Your task to perform on an android device: What's the weather going to be tomorrow? Image 0: 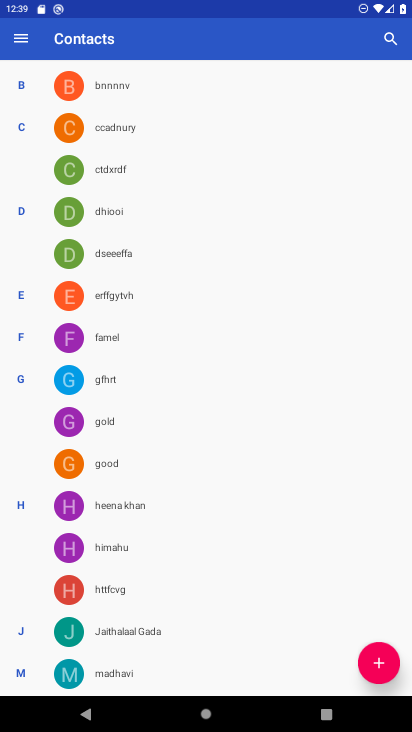
Step 0: press home button
Your task to perform on an android device: What's the weather going to be tomorrow? Image 1: 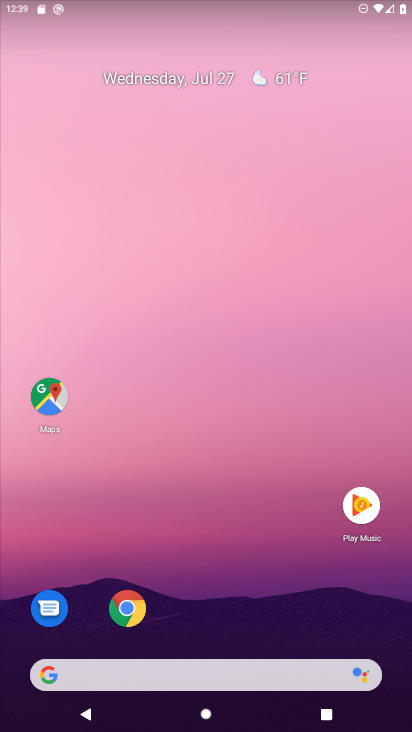
Step 1: click (250, 665)
Your task to perform on an android device: What's the weather going to be tomorrow? Image 2: 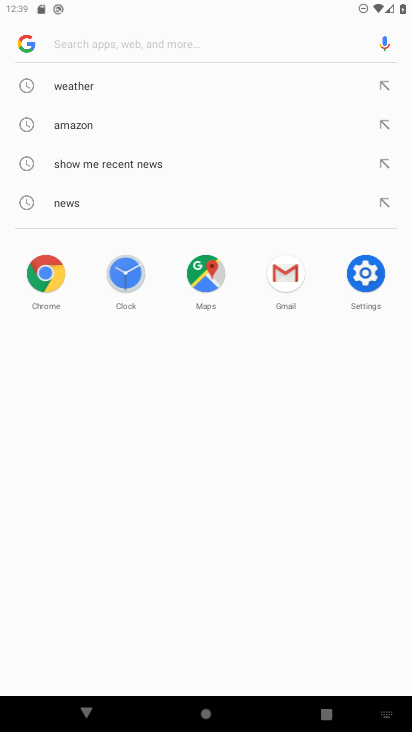
Step 2: click (89, 89)
Your task to perform on an android device: What's the weather going to be tomorrow? Image 3: 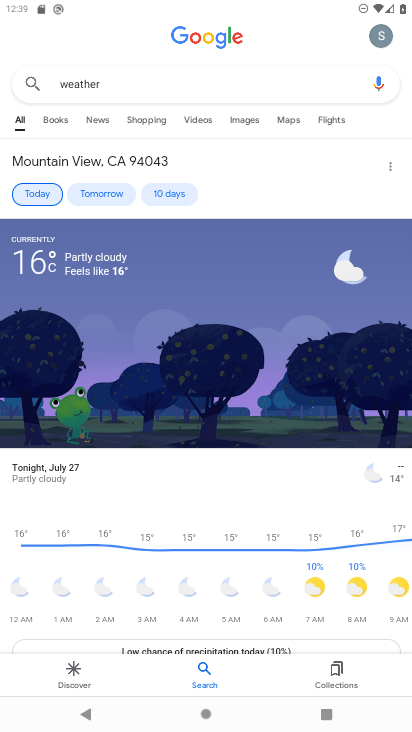
Step 3: click (104, 196)
Your task to perform on an android device: What's the weather going to be tomorrow? Image 4: 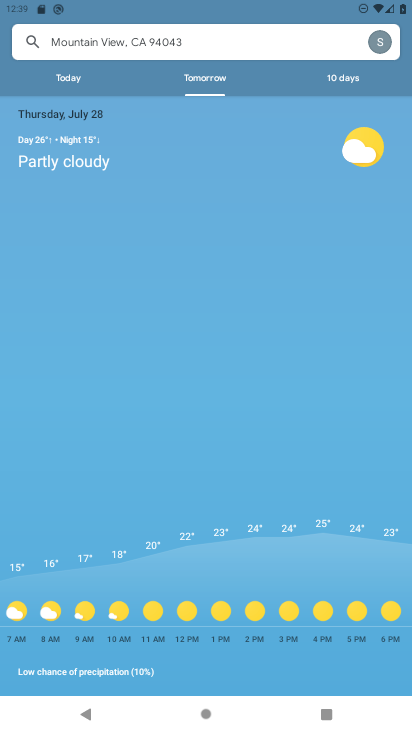
Step 4: task complete